Your task to perform on an android device: turn off notifications settings in the gmail app Image 0: 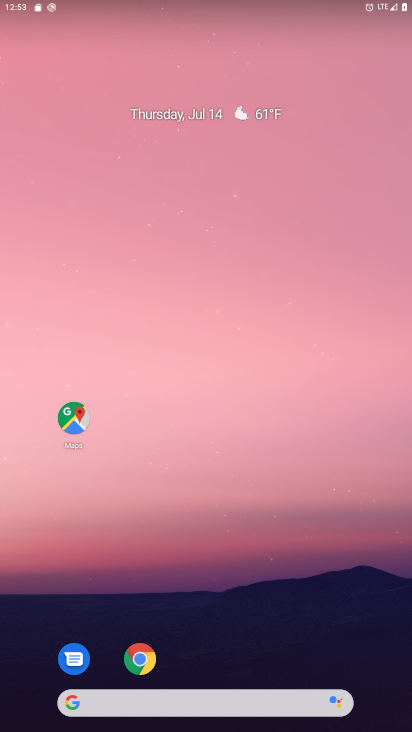
Step 0: drag from (210, 671) to (222, 134)
Your task to perform on an android device: turn off notifications settings in the gmail app Image 1: 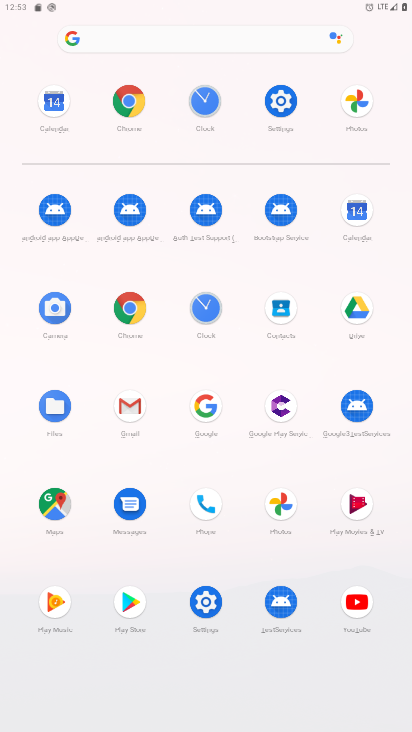
Step 1: click (130, 402)
Your task to perform on an android device: turn off notifications settings in the gmail app Image 2: 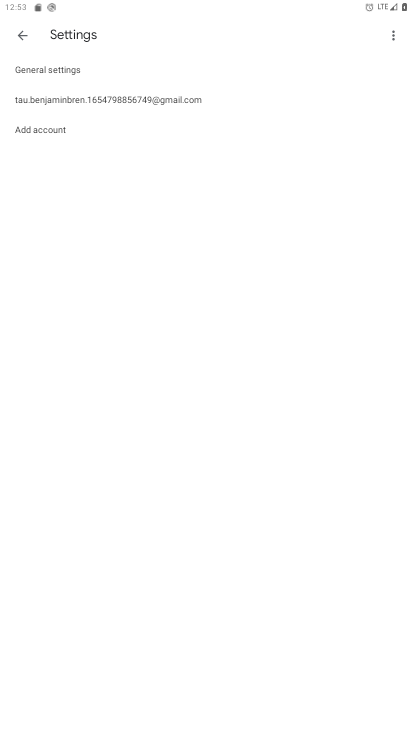
Step 2: click (87, 64)
Your task to perform on an android device: turn off notifications settings in the gmail app Image 3: 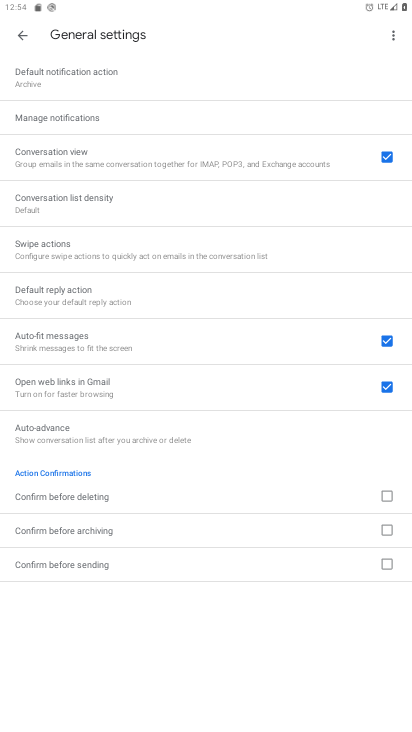
Step 3: click (110, 117)
Your task to perform on an android device: turn off notifications settings in the gmail app Image 4: 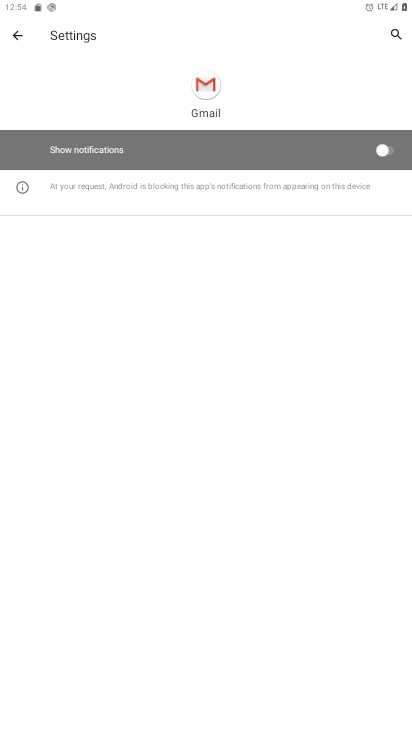
Step 4: task complete